Your task to perform on an android device: Open Wikipedia Image 0: 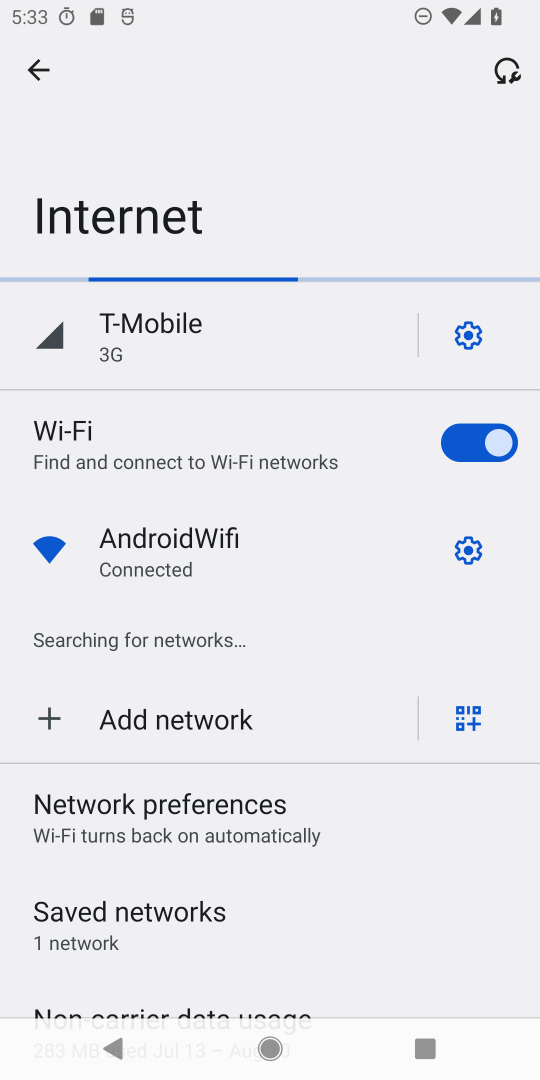
Step 0: press home button
Your task to perform on an android device: Open Wikipedia Image 1: 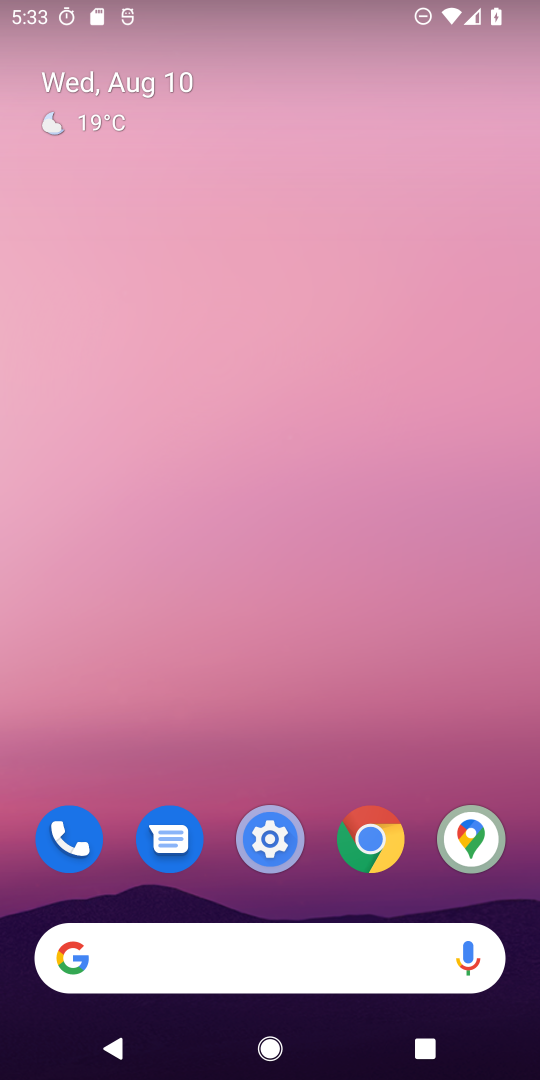
Step 1: click (181, 967)
Your task to perform on an android device: Open Wikipedia Image 2: 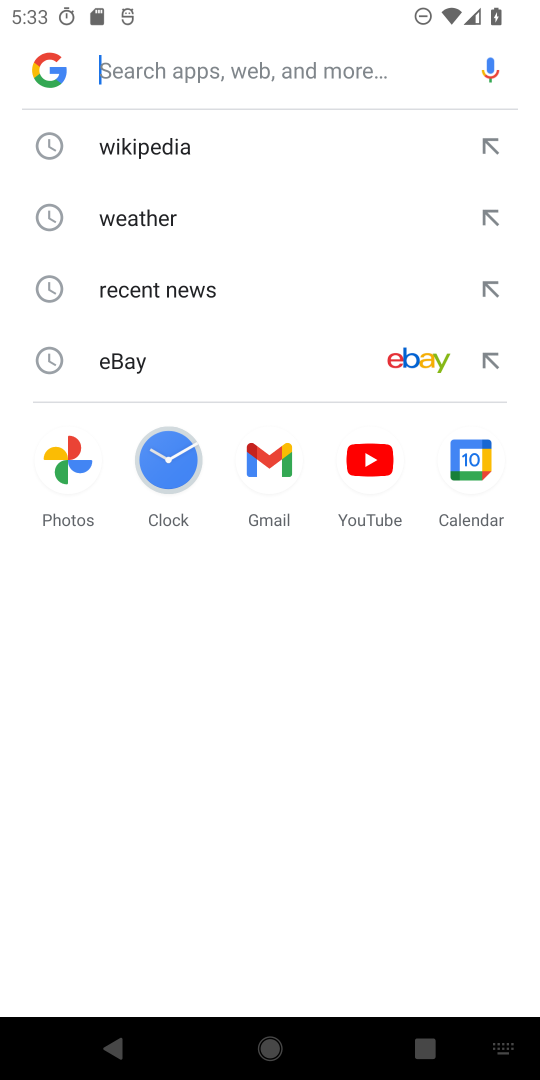
Step 2: click (105, 152)
Your task to perform on an android device: Open Wikipedia Image 3: 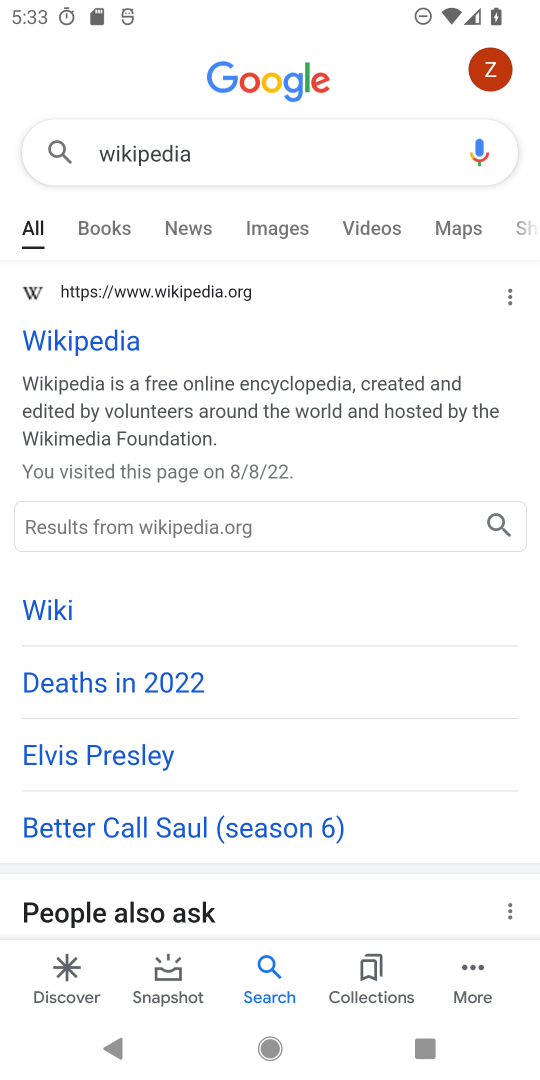
Step 3: task complete